Your task to perform on an android device: What's on my calendar tomorrow? Image 0: 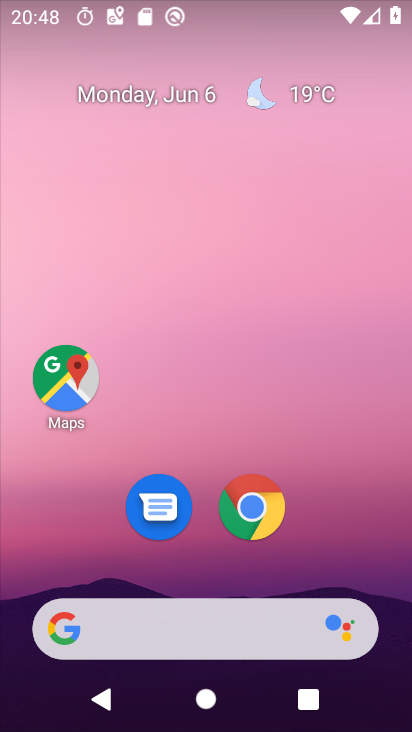
Step 0: press home button
Your task to perform on an android device: What's on my calendar tomorrow? Image 1: 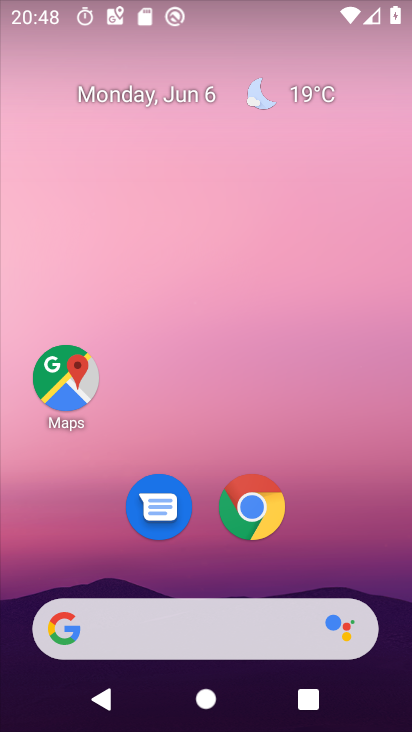
Step 1: drag from (366, 582) to (390, 2)
Your task to perform on an android device: What's on my calendar tomorrow? Image 2: 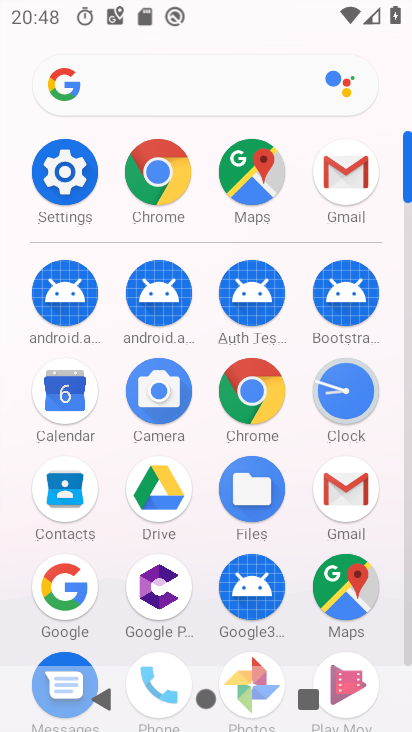
Step 2: click (43, 398)
Your task to perform on an android device: What's on my calendar tomorrow? Image 3: 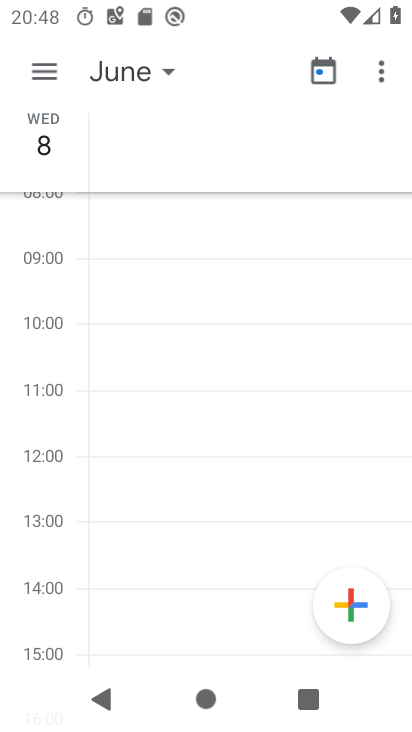
Step 3: click (50, 84)
Your task to perform on an android device: What's on my calendar tomorrow? Image 4: 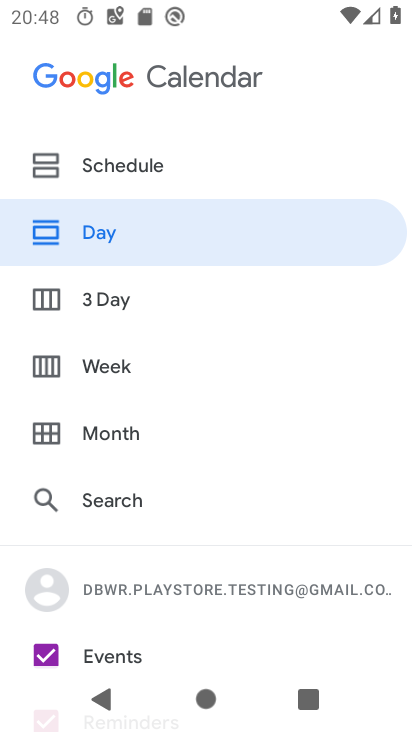
Step 4: click (107, 171)
Your task to perform on an android device: What's on my calendar tomorrow? Image 5: 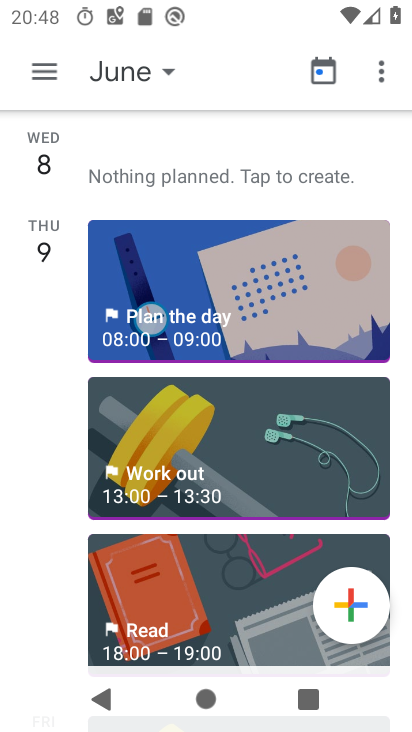
Step 5: task complete